Your task to perform on an android device: empty trash in the gmail app Image 0: 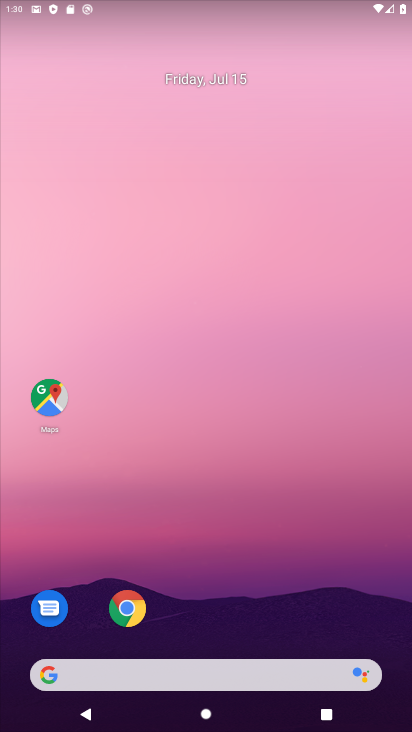
Step 0: drag from (204, 668) to (193, 127)
Your task to perform on an android device: empty trash in the gmail app Image 1: 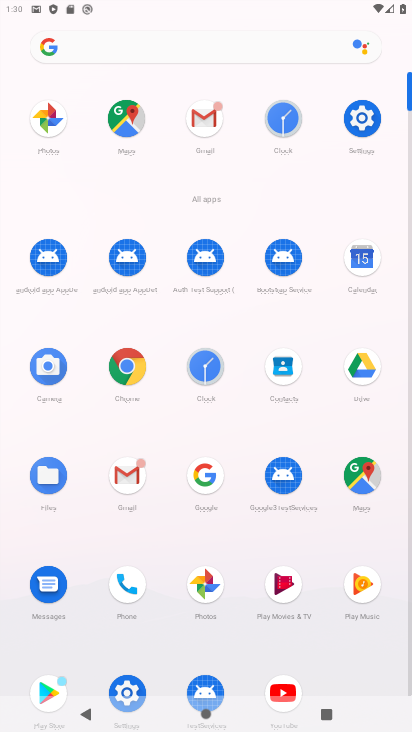
Step 1: click (129, 489)
Your task to perform on an android device: empty trash in the gmail app Image 2: 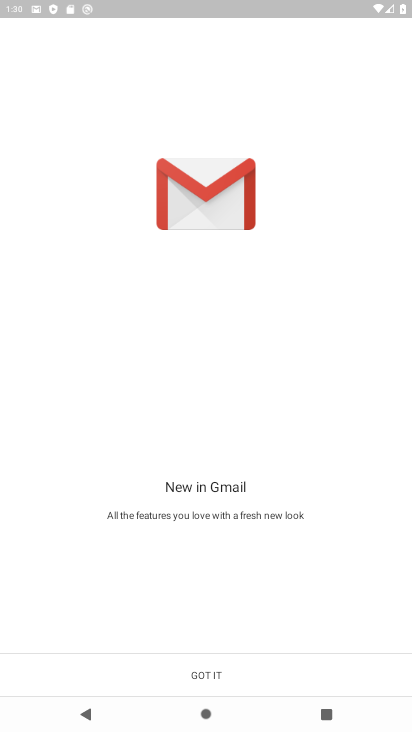
Step 2: click (215, 667)
Your task to perform on an android device: empty trash in the gmail app Image 3: 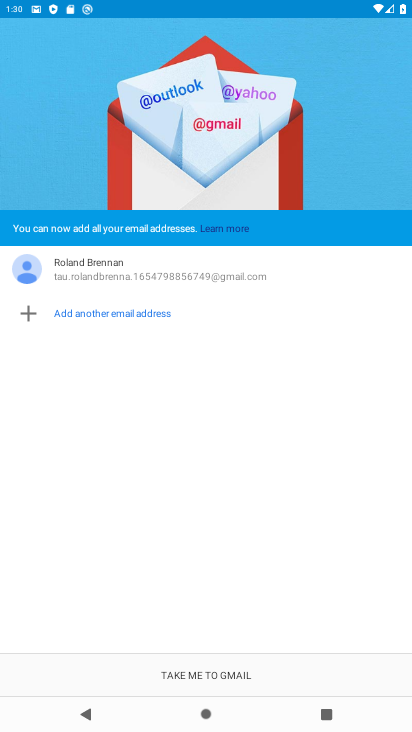
Step 3: click (215, 667)
Your task to perform on an android device: empty trash in the gmail app Image 4: 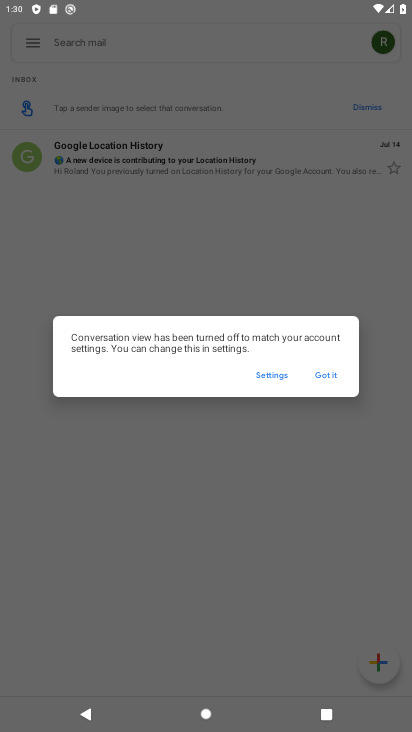
Step 4: click (325, 380)
Your task to perform on an android device: empty trash in the gmail app Image 5: 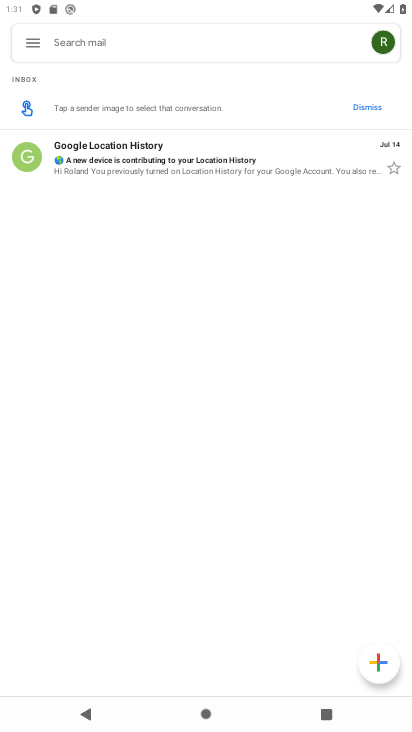
Step 5: click (32, 52)
Your task to perform on an android device: empty trash in the gmail app Image 6: 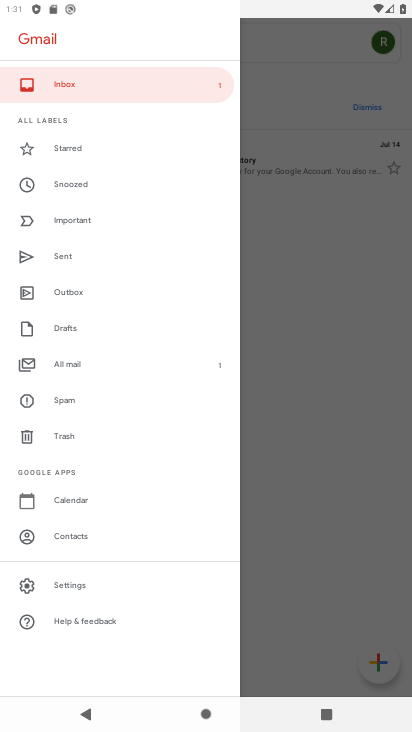
Step 6: click (77, 438)
Your task to perform on an android device: empty trash in the gmail app Image 7: 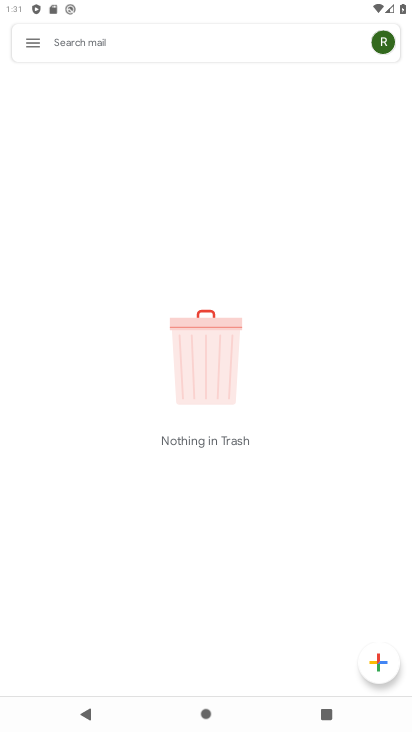
Step 7: task complete